Your task to perform on an android device: Open Google Chrome and click the shortcut for Amazon.com Image 0: 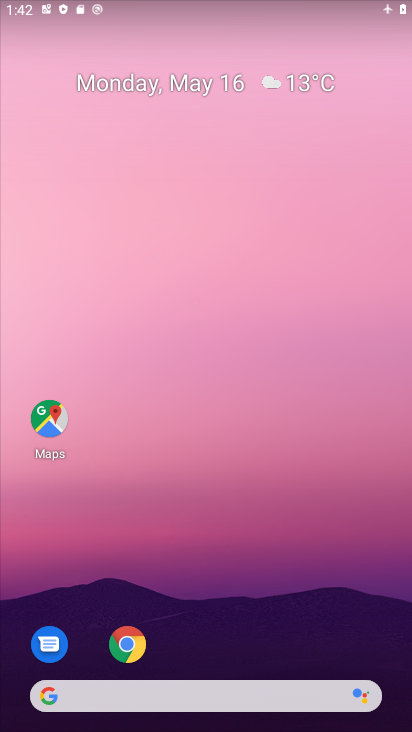
Step 0: drag from (259, 647) to (311, 156)
Your task to perform on an android device: Open Google Chrome and click the shortcut for Amazon.com Image 1: 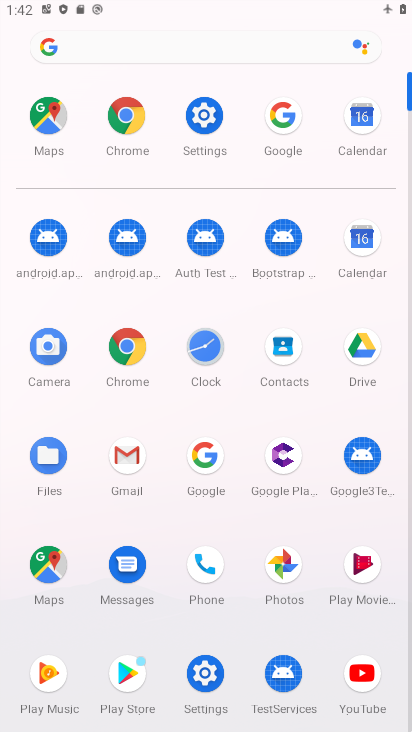
Step 1: click (127, 146)
Your task to perform on an android device: Open Google Chrome and click the shortcut for Amazon.com Image 2: 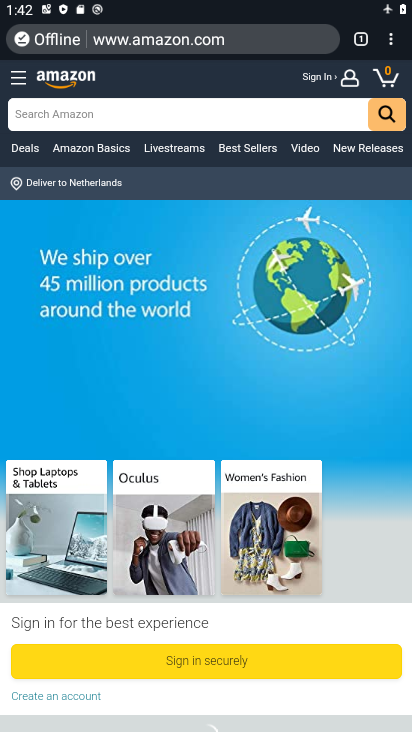
Step 2: task complete